Your task to perform on an android device: toggle notifications settings in the gmail app Image 0: 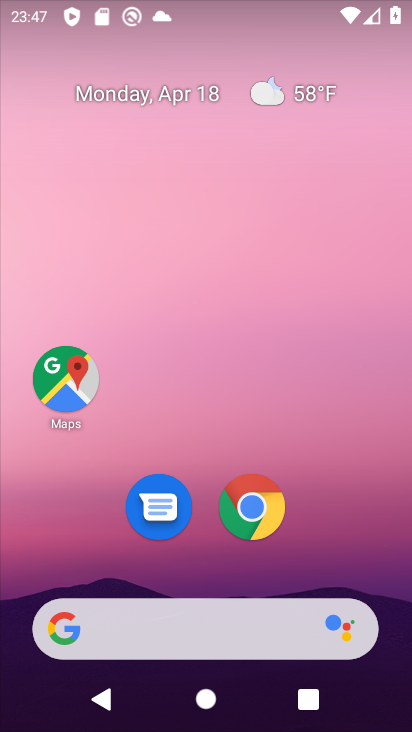
Step 0: drag from (200, 572) to (239, 0)
Your task to perform on an android device: toggle notifications settings in the gmail app Image 1: 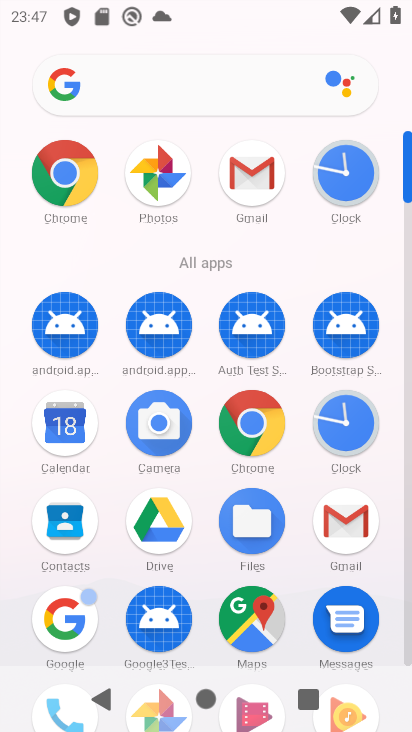
Step 1: click (345, 517)
Your task to perform on an android device: toggle notifications settings in the gmail app Image 2: 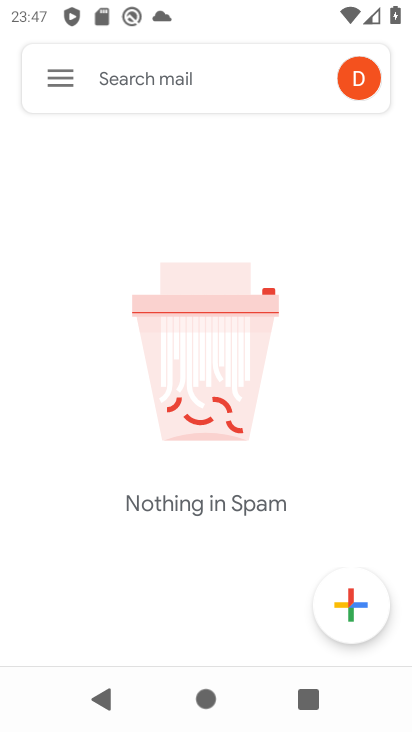
Step 2: click (58, 74)
Your task to perform on an android device: toggle notifications settings in the gmail app Image 3: 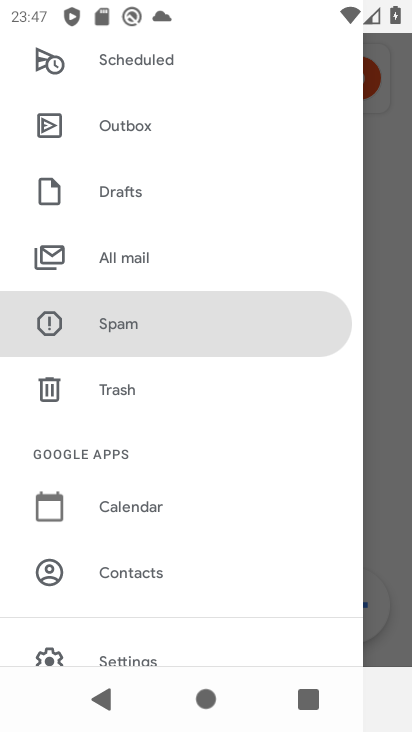
Step 3: drag from (144, 630) to (174, 151)
Your task to perform on an android device: toggle notifications settings in the gmail app Image 4: 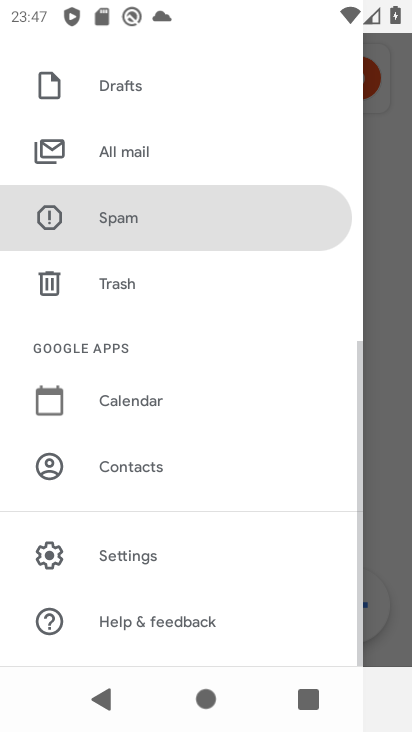
Step 4: click (158, 548)
Your task to perform on an android device: toggle notifications settings in the gmail app Image 5: 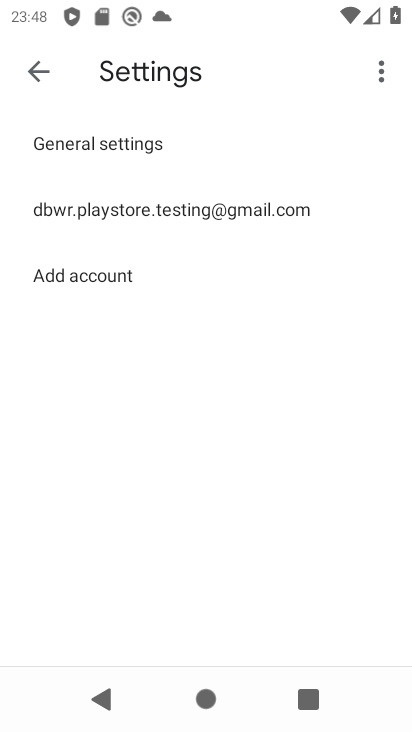
Step 5: click (169, 142)
Your task to perform on an android device: toggle notifications settings in the gmail app Image 6: 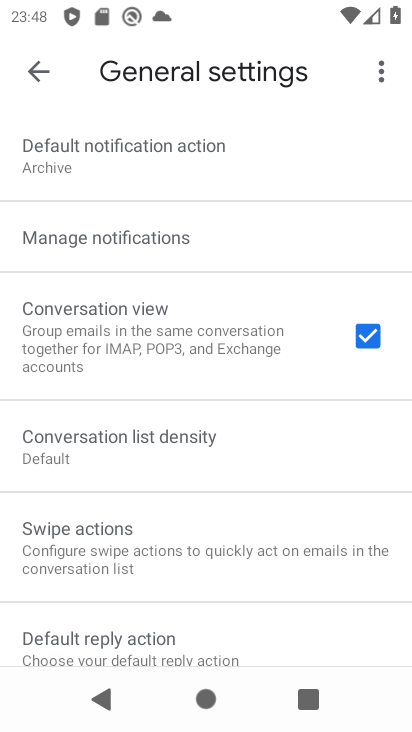
Step 6: click (194, 235)
Your task to perform on an android device: toggle notifications settings in the gmail app Image 7: 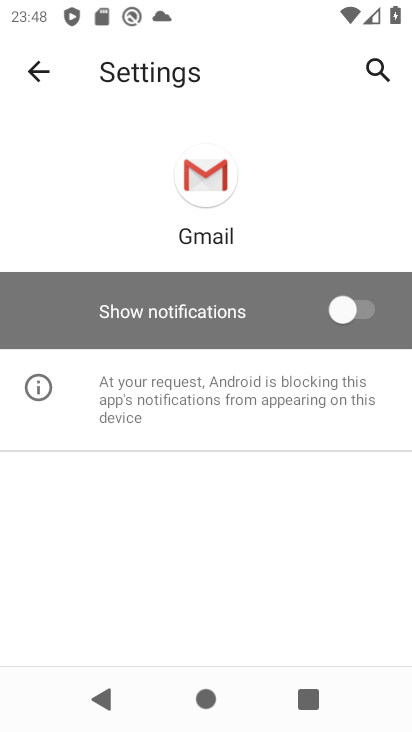
Step 7: click (363, 311)
Your task to perform on an android device: toggle notifications settings in the gmail app Image 8: 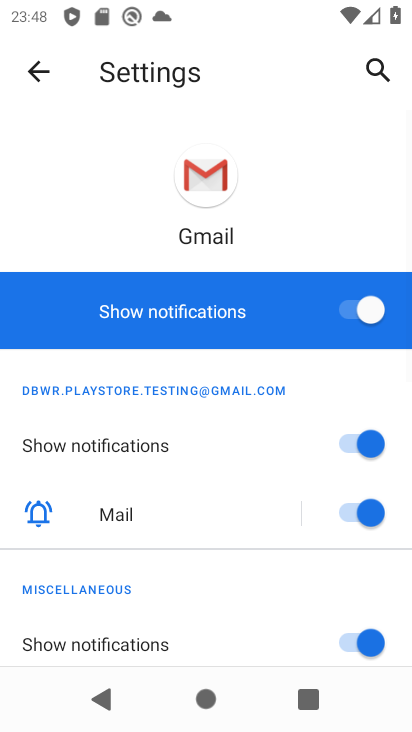
Step 8: task complete